Your task to perform on an android device: toggle improve location accuracy Image 0: 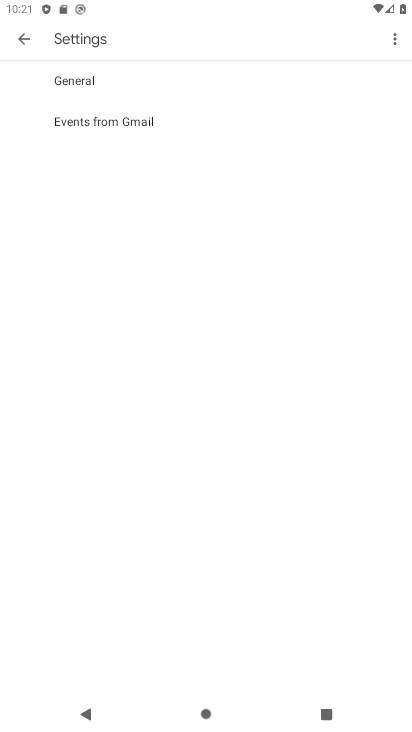
Step 0: press home button
Your task to perform on an android device: toggle improve location accuracy Image 1: 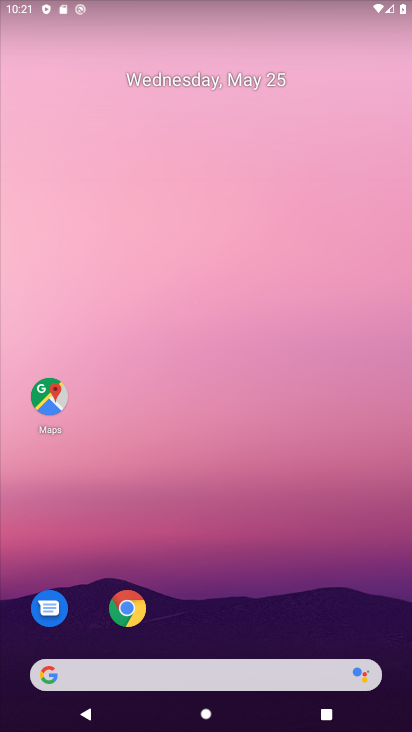
Step 1: drag from (229, 636) to (236, 158)
Your task to perform on an android device: toggle improve location accuracy Image 2: 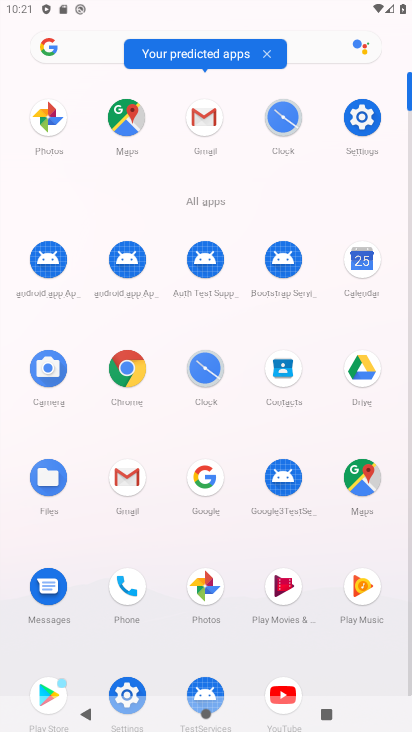
Step 2: click (368, 126)
Your task to perform on an android device: toggle improve location accuracy Image 3: 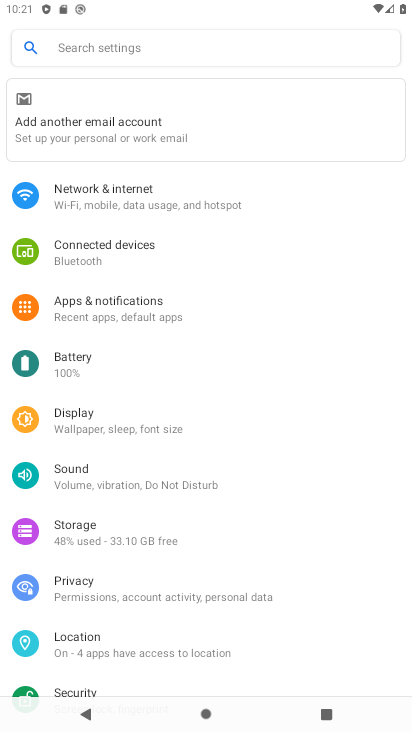
Step 3: click (134, 659)
Your task to perform on an android device: toggle improve location accuracy Image 4: 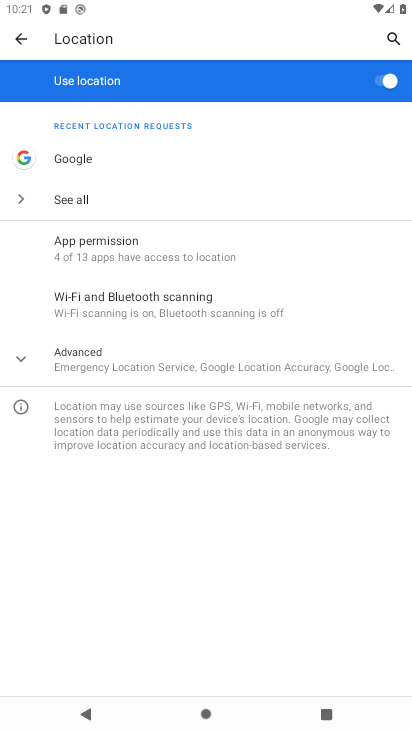
Step 4: click (137, 369)
Your task to perform on an android device: toggle improve location accuracy Image 5: 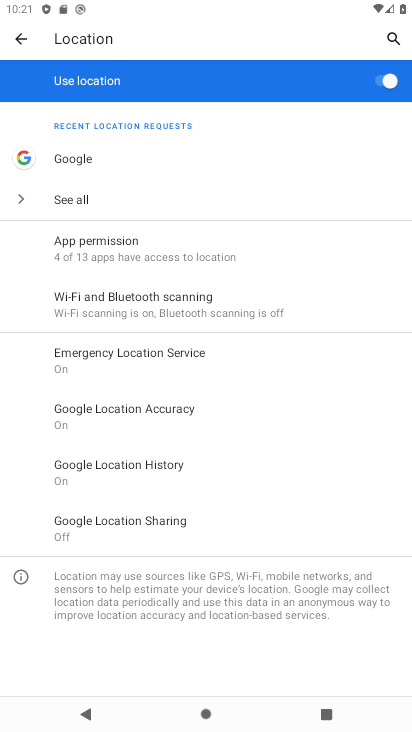
Step 5: click (148, 411)
Your task to perform on an android device: toggle improve location accuracy Image 6: 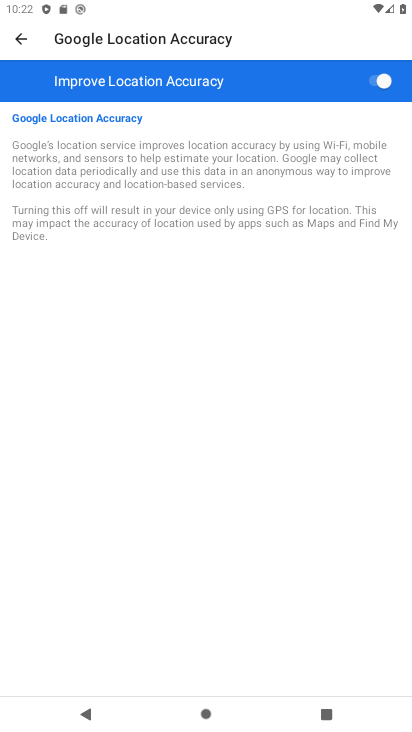
Step 6: click (371, 80)
Your task to perform on an android device: toggle improve location accuracy Image 7: 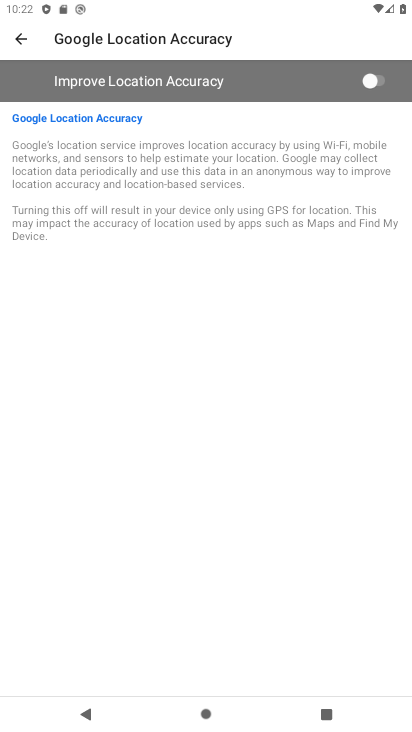
Step 7: task complete